Your task to perform on an android device: find which apps use the phone's location Image 0: 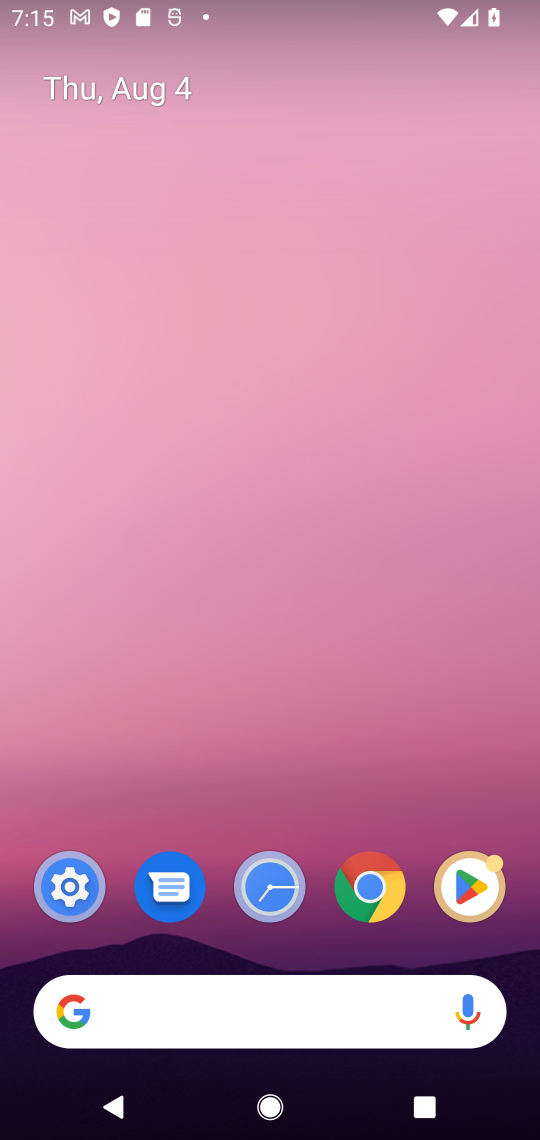
Step 0: click (298, 547)
Your task to perform on an android device: find which apps use the phone's location Image 1: 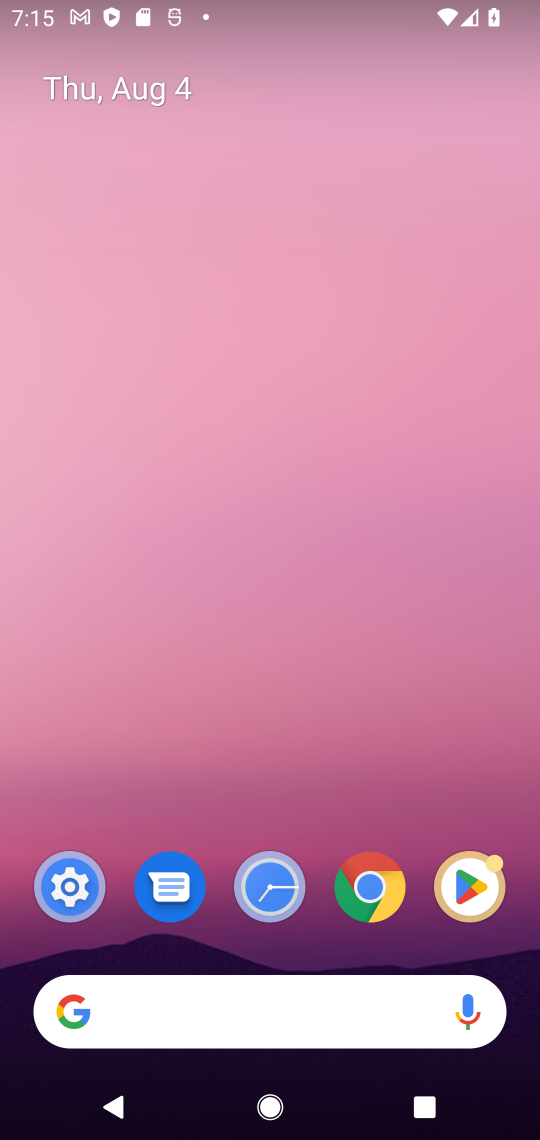
Step 1: drag from (245, 814) to (267, 175)
Your task to perform on an android device: find which apps use the phone's location Image 2: 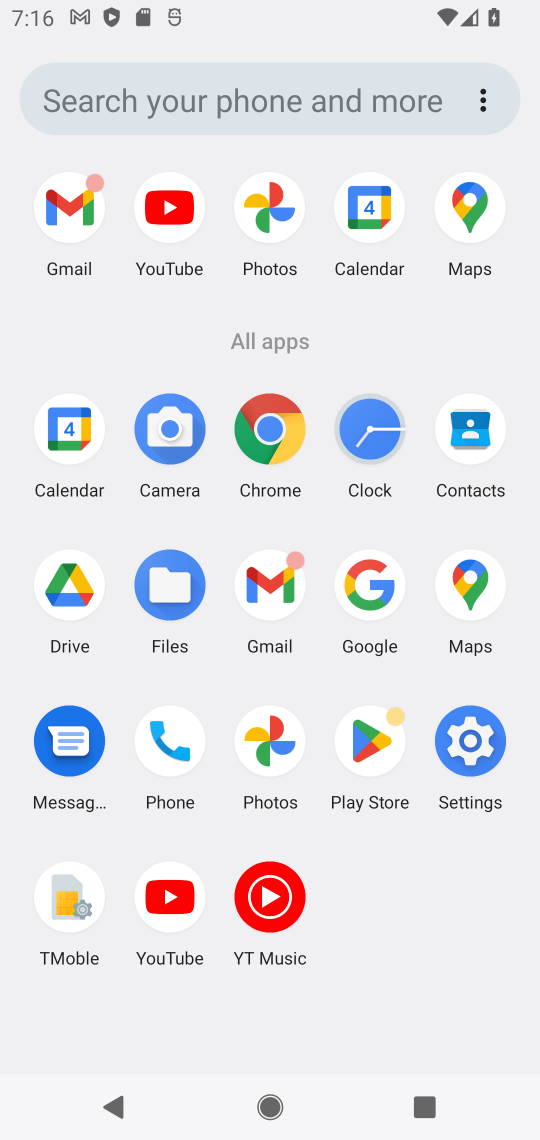
Step 2: click (476, 743)
Your task to perform on an android device: find which apps use the phone's location Image 3: 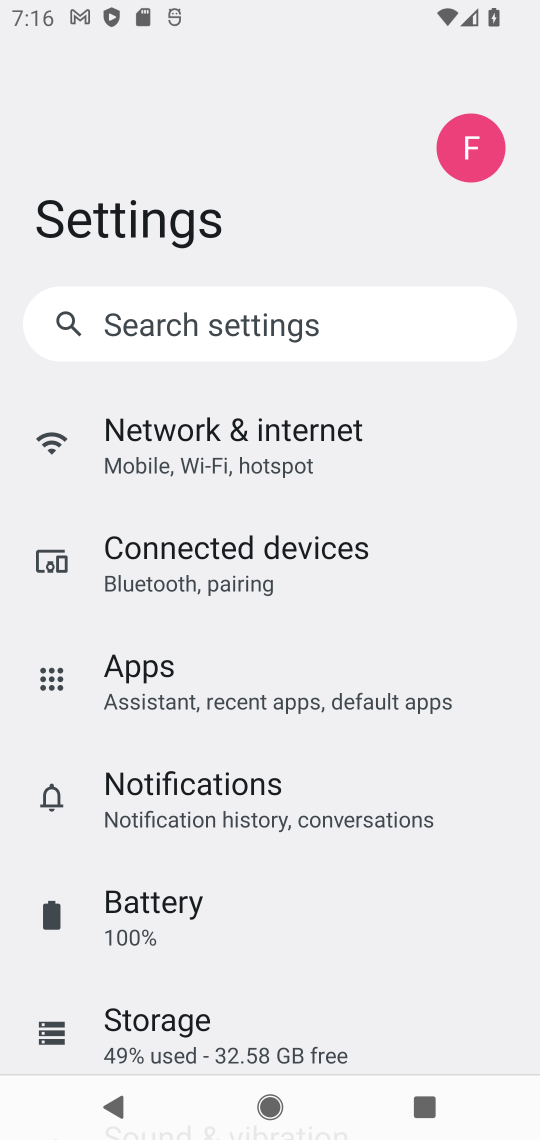
Step 3: drag from (171, 1023) to (201, 377)
Your task to perform on an android device: find which apps use the phone's location Image 4: 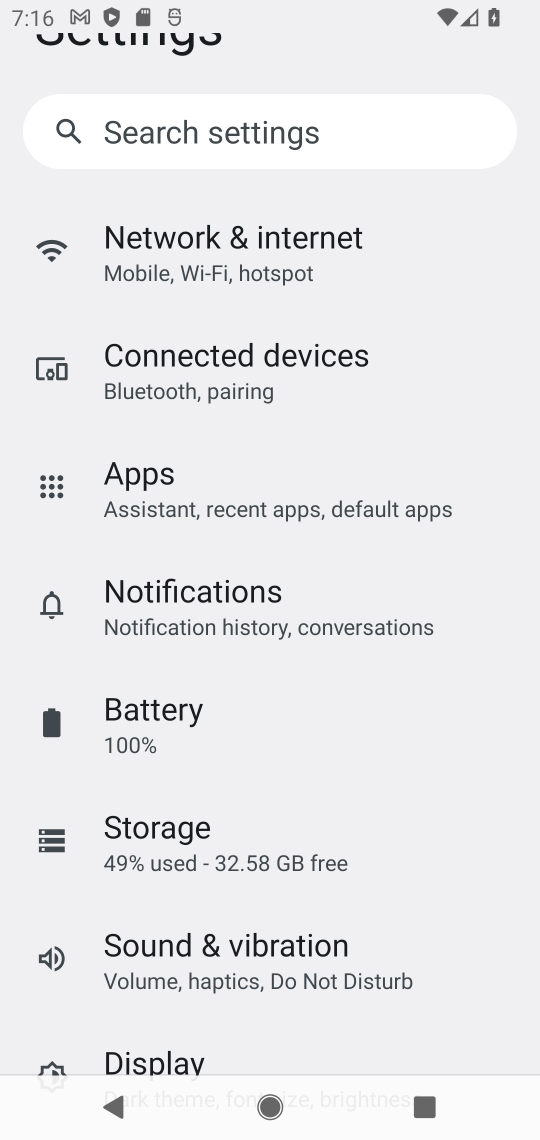
Step 4: drag from (174, 1032) to (174, 601)
Your task to perform on an android device: find which apps use the phone's location Image 5: 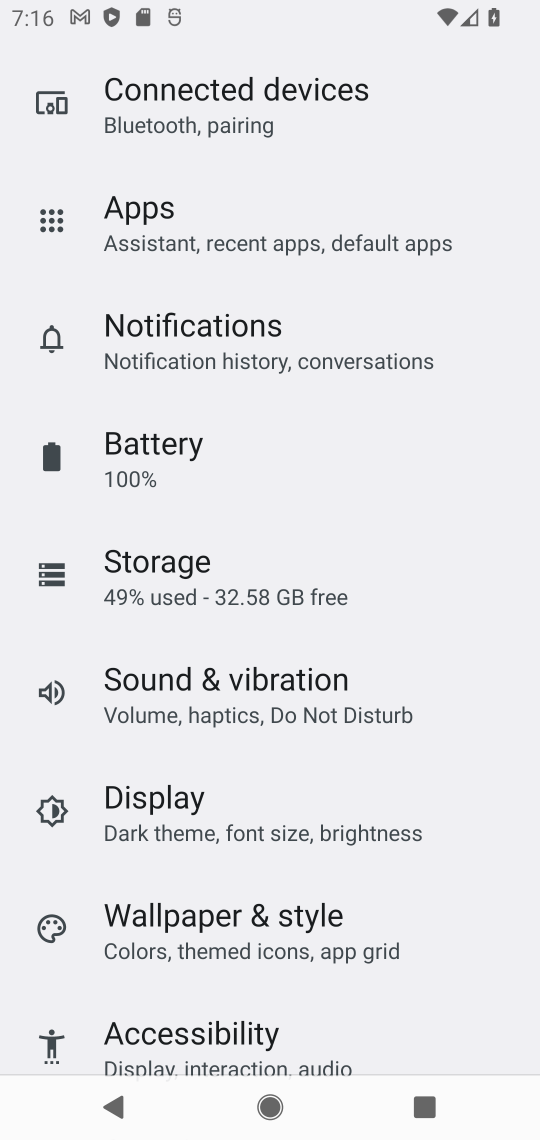
Step 5: drag from (199, 823) to (202, 481)
Your task to perform on an android device: find which apps use the phone's location Image 6: 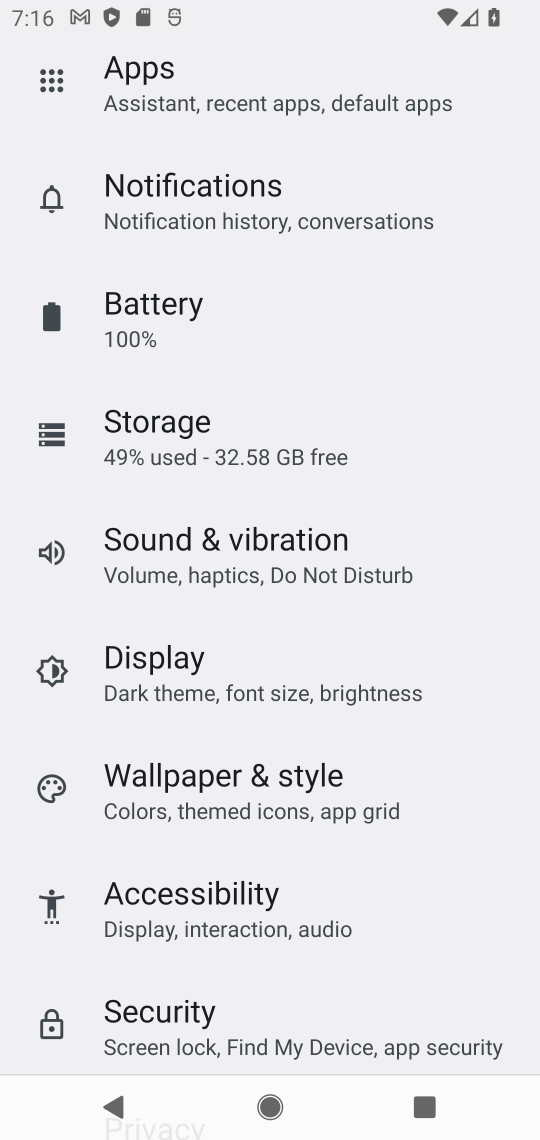
Step 6: drag from (206, 1006) to (213, 447)
Your task to perform on an android device: find which apps use the phone's location Image 7: 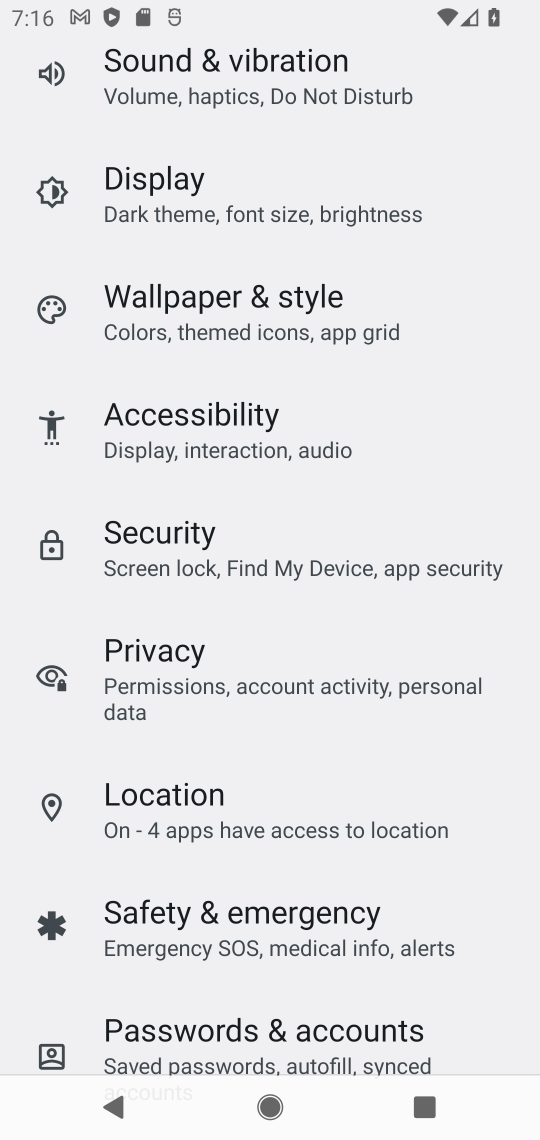
Step 7: click (168, 816)
Your task to perform on an android device: find which apps use the phone's location Image 8: 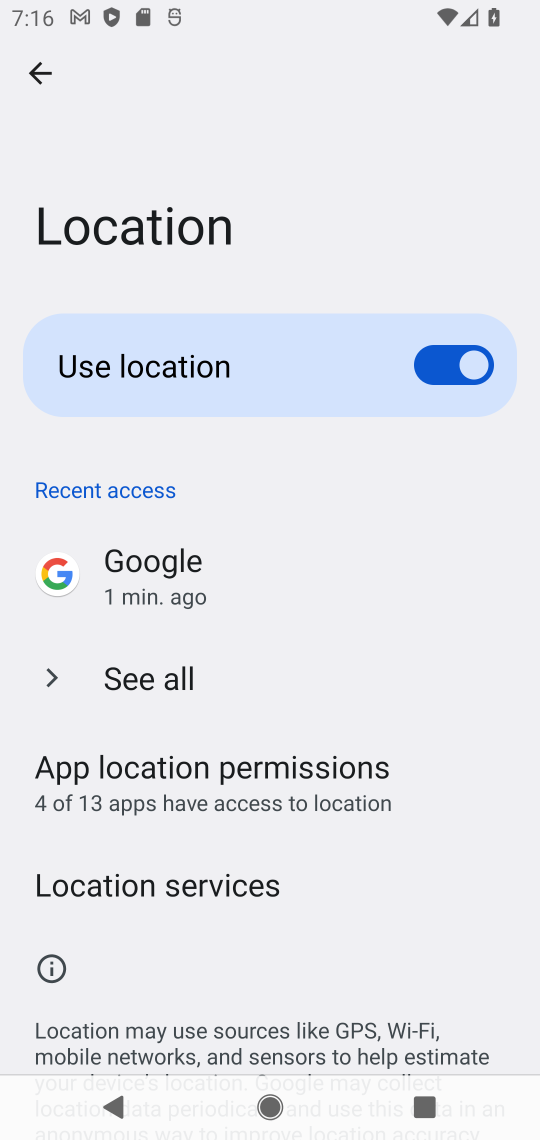
Step 8: click (157, 789)
Your task to perform on an android device: find which apps use the phone's location Image 9: 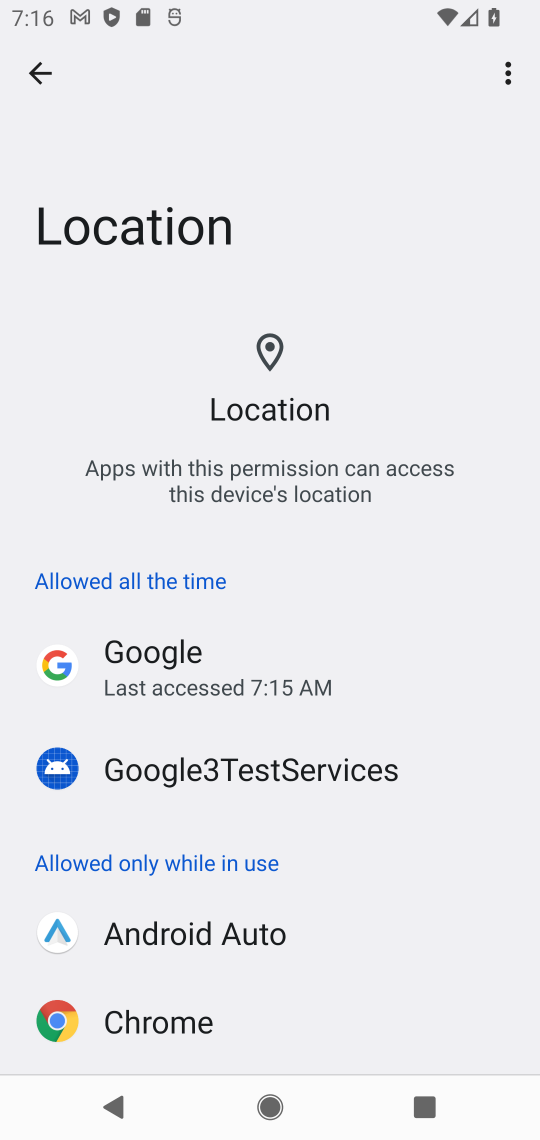
Step 9: task complete